Your task to perform on an android device: Search for vegetarian restaurants on Maps Image 0: 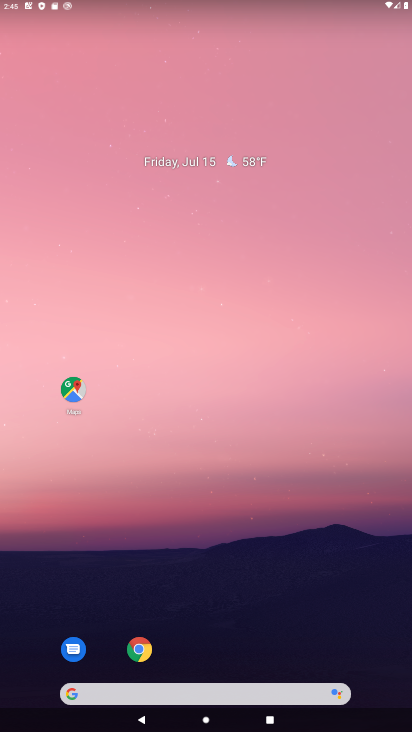
Step 0: drag from (198, 641) to (208, 359)
Your task to perform on an android device: Search for vegetarian restaurants on Maps Image 1: 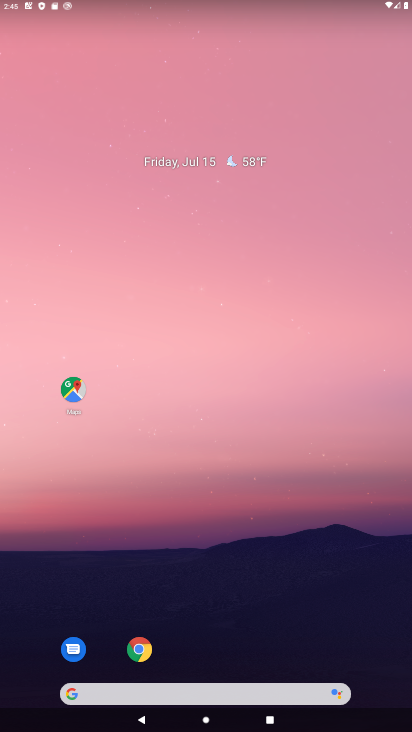
Step 1: drag from (234, 722) to (224, 177)
Your task to perform on an android device: Search for vegetarian restaurants on Maps Image 2: 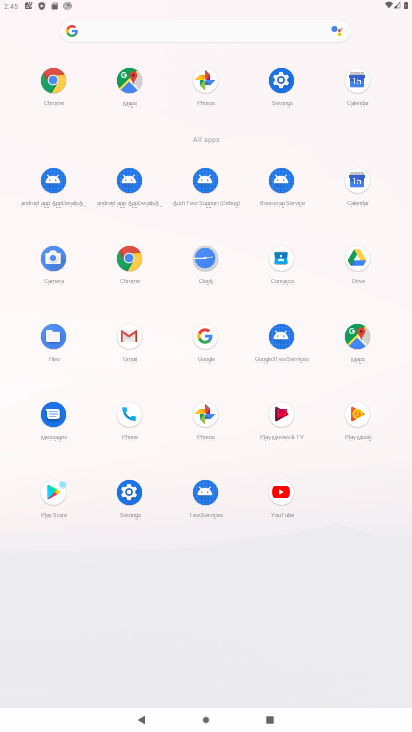
Step 2: click (351, 337)
Your task to perform on an android device: Search for vegetarian restaurants on Maps Image 3: 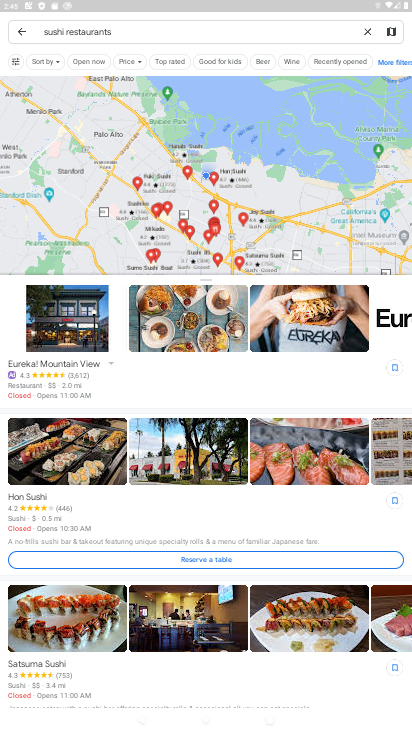
Step 3: click (131, 28)
Your task to perform on an android device: Search for vegetarian restaurants on Maps Image 4: 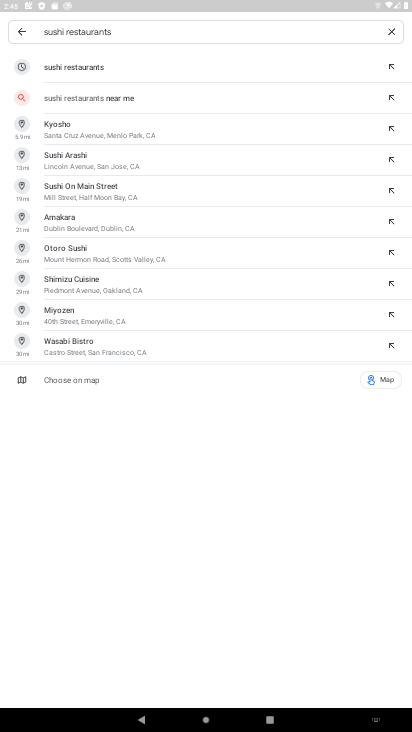
Step 4: click (389, 29)
Your task to perform on an android device: Search for vegetarian restaurants on Maps Image 5: 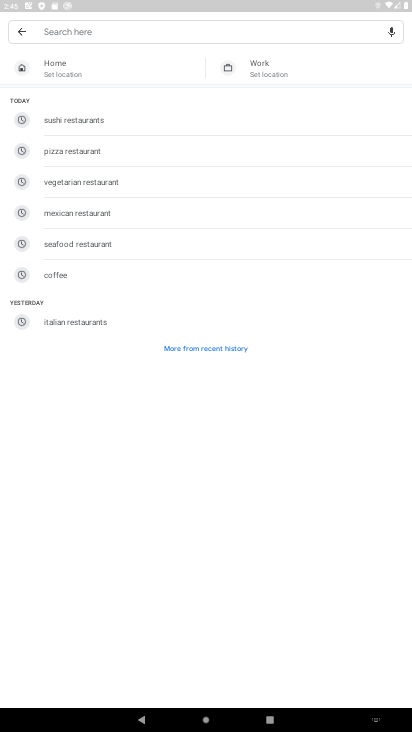
Step 5: type "vegetarian restaurants"
Your task to perform on an android device: Search for vegetarian restaurants on Maps Image 6: 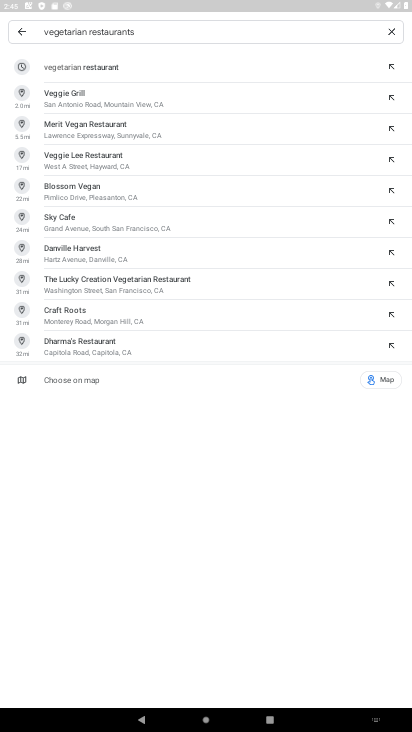
Step 6: click (109, 65)
Your task to perform on an android device: Search for vegetarian restaurants on Maps Image 7: 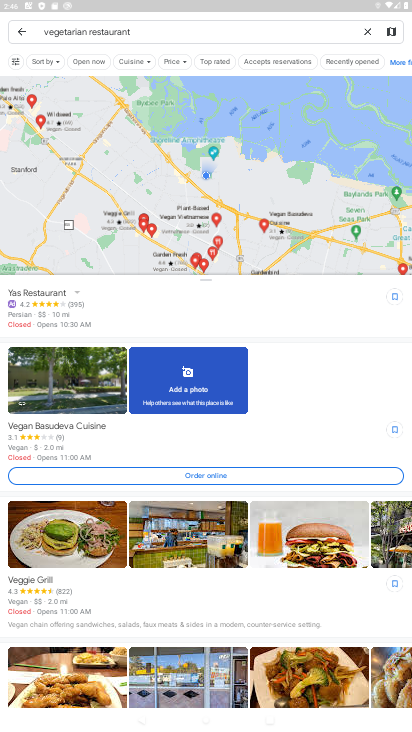
Step 7: task complete